Your task to perform on an android device: What is the news today? Image 0: 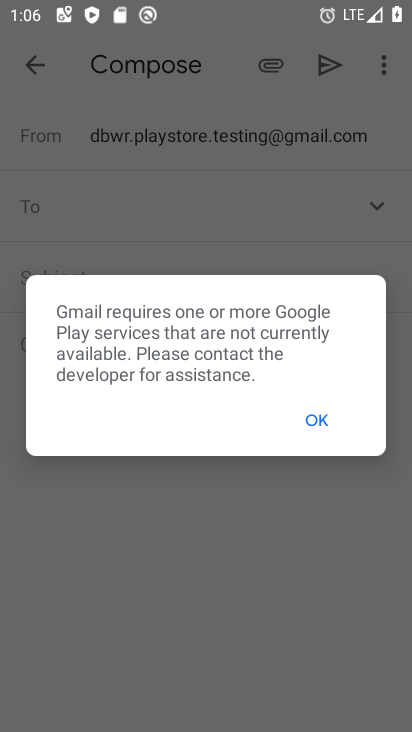
Step 0: press home button
Your task to perform on an android device: What is the news today? Image 1: 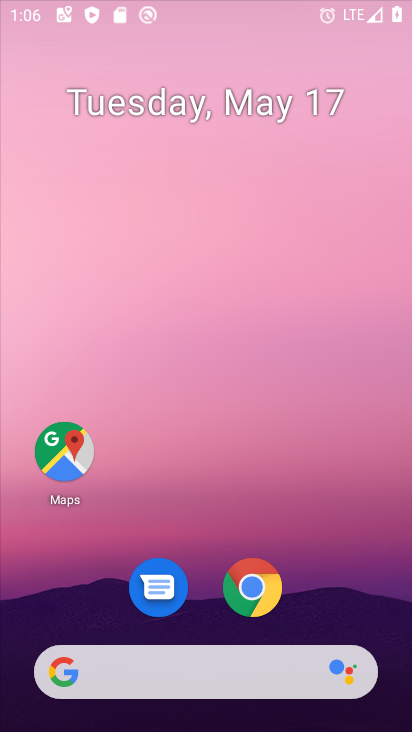
Step 1: drag from (388, 679) to (304, 0)
Your task to perform on an android device: What is the news today? Image 2: 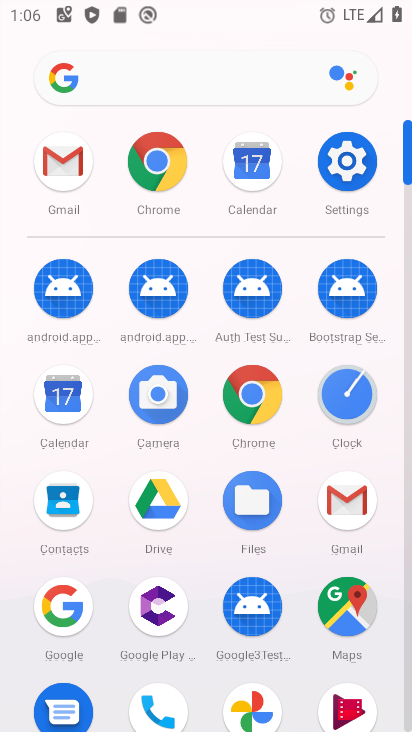
Step 2: click (72, 626)
Your task to perform on an android device: What is the news today? Image 3: 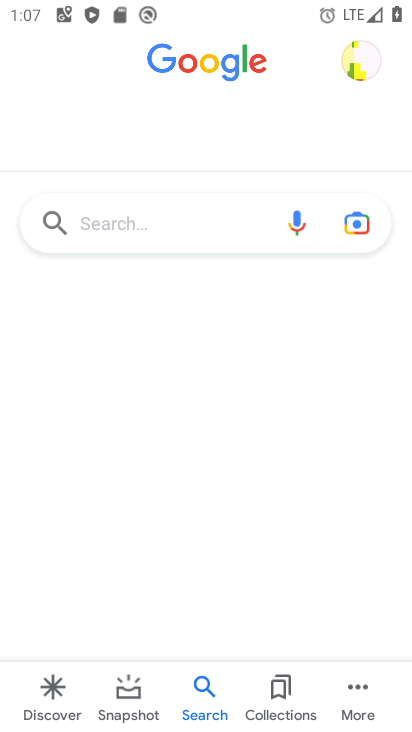
Step 3: click (152, 204)
Your task to perform on an android device: What is the news today? Image 4: 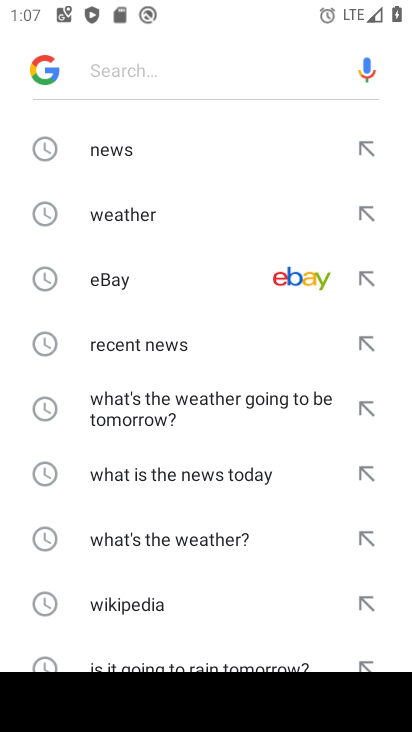
Step 4: click (193, 491)
Your task to perform on an android device: What is the news today? Image 5: 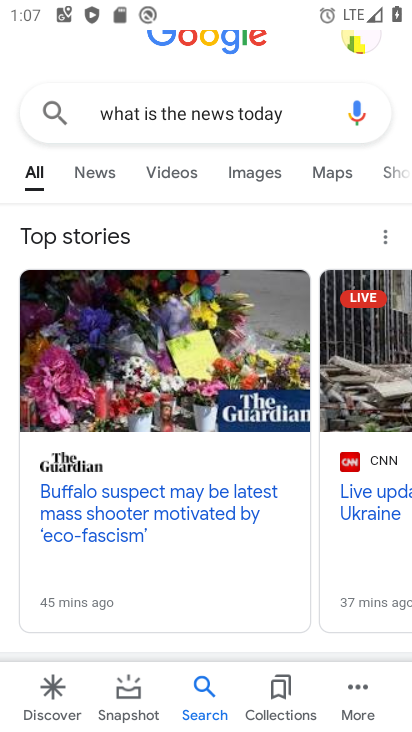
Step 5: task complete